Your task to perform on an android device: What's on my calendar tomorrow? Image 0: 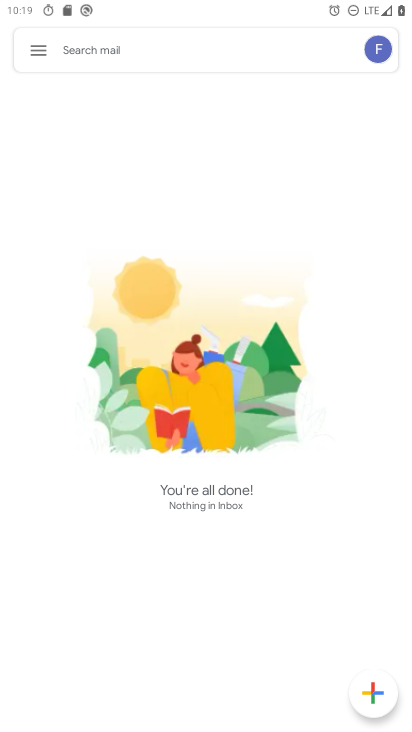
Step 0: press home button
Your task to perform on an android device: What's on my calendar tomorrow? Image 1: 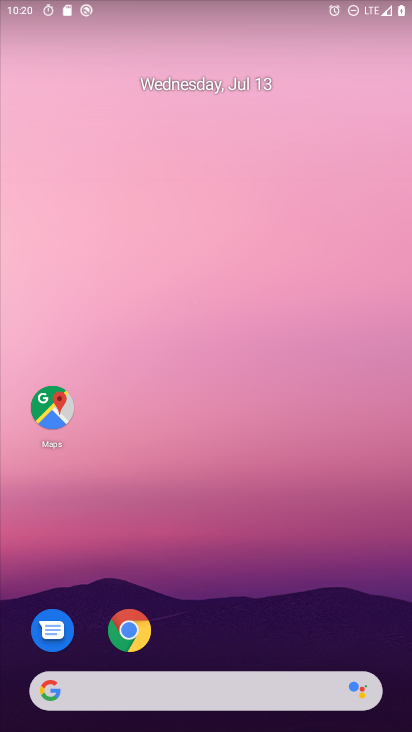
Step 1: drag from (388, 661) to (329, 152)
Your task to perform on an android device: What's on my calendar tomorrow? Image 2: 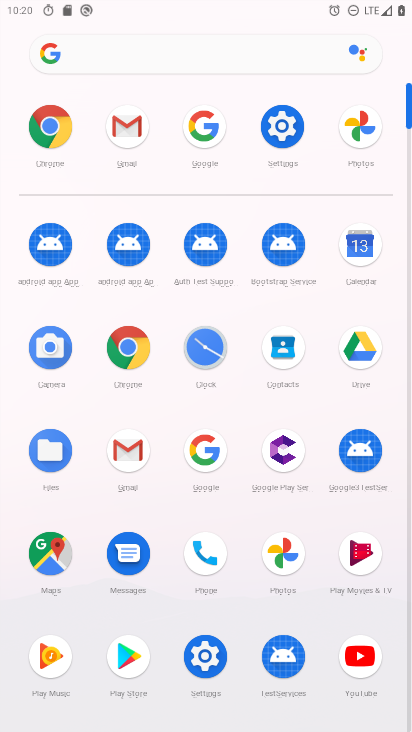
Step 2: click (363, 230)
Your task to perform on an android device: What's on my calendar tomorrow? Image 3: 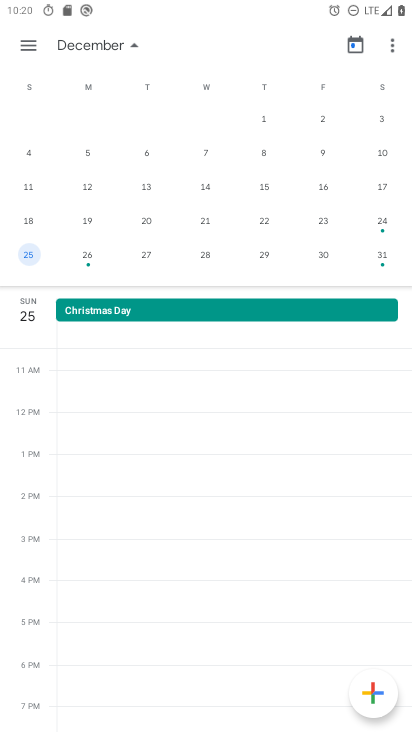
Step 3: task complete